Your task to perform on an android device: Open CNN.com Image 0: 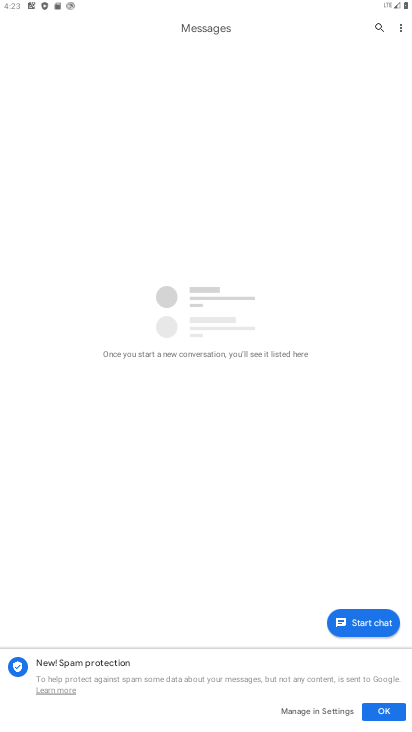
Step 0: press home button
Your task to perform on an android device: Open CNN.com Image 1: 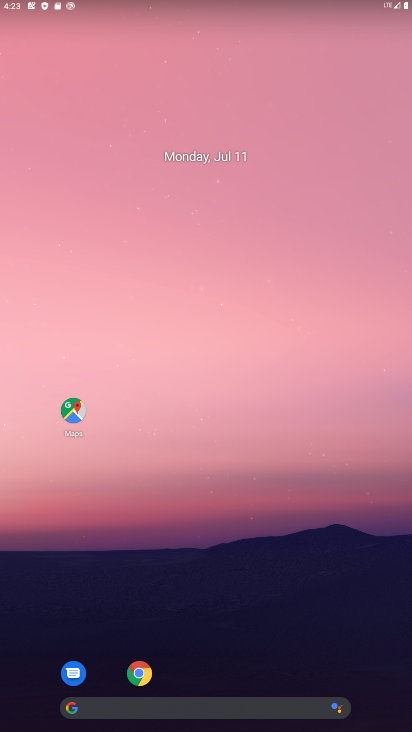
Step 1: click (139, 674)
Your task to perform on an android device: Open CNN.com Image 2: 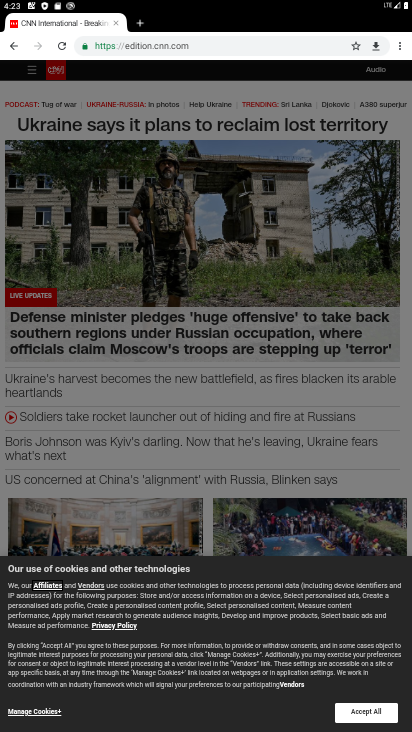
Step 2: click (218, 43)
Your task to perform on an android device: Open CNN.com Image 3: 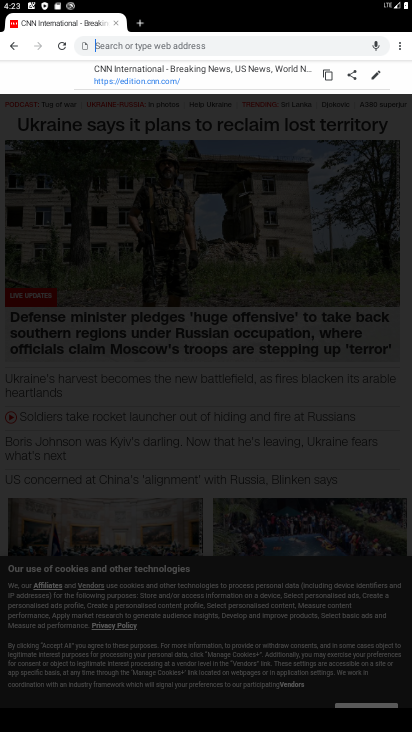
Step 3: type "CNN.com"
Your task to perform on an android device: Open CNN.com Image 4: 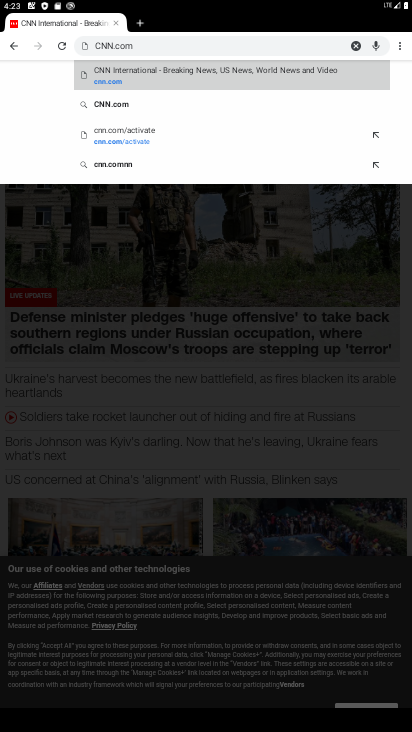
Step 4: click (115, 102)
Your task to perform on an android device: Open CNN.com Image 5: 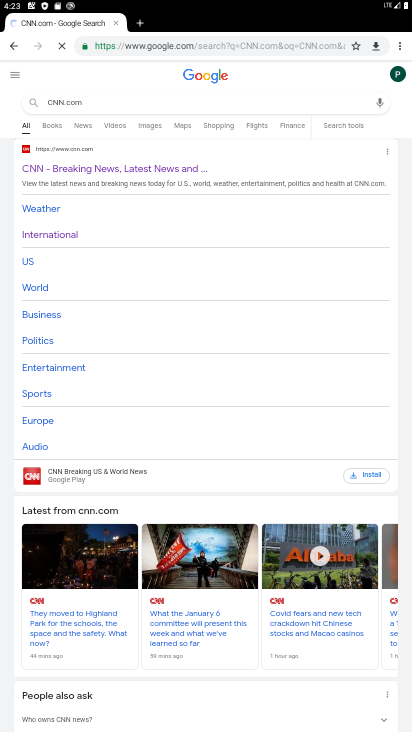
Step 5: click (100, 168)
Your task to perform on an android device: Open CNN.com Image 6: 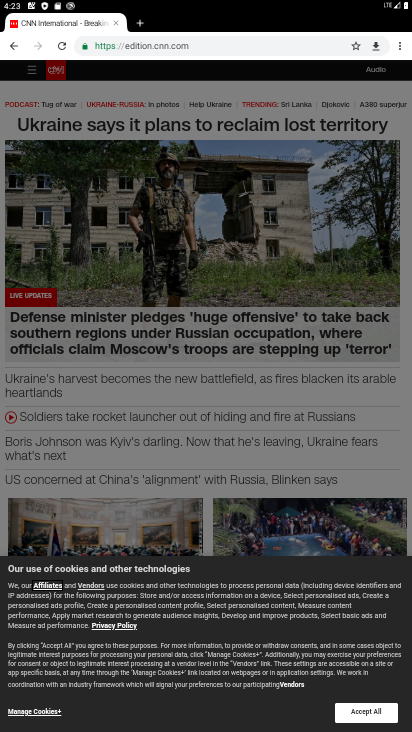
Step 6: task complete